Your task to perform on an android device: Check the news Image 0: 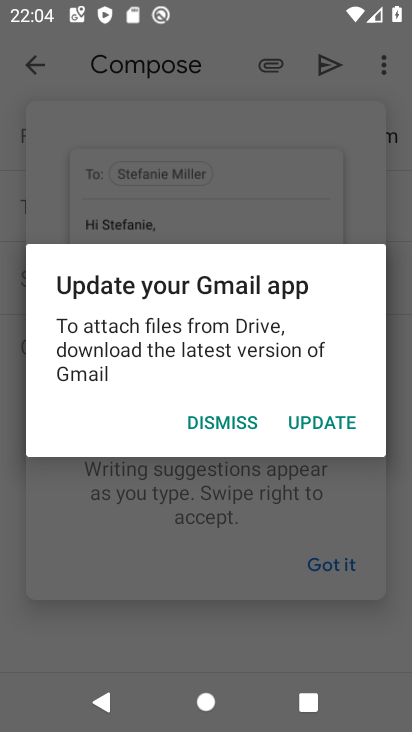
Step 0: press home button
Your task to perform on an android device: Check the news Image 1: 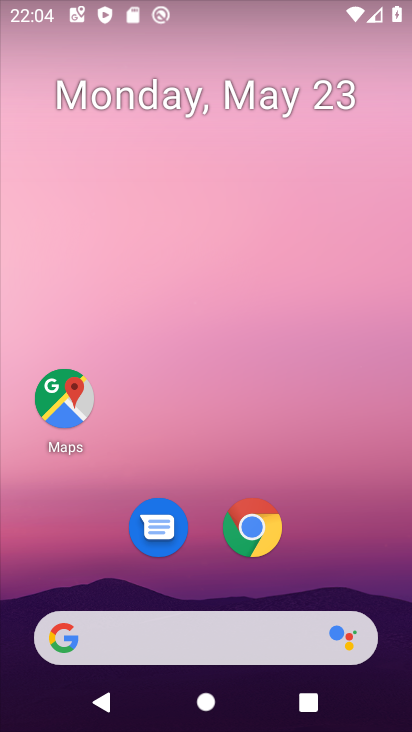
Step 1: task complete